Your task to perform on an android device: turn pop-ups off in chrome Image 0: 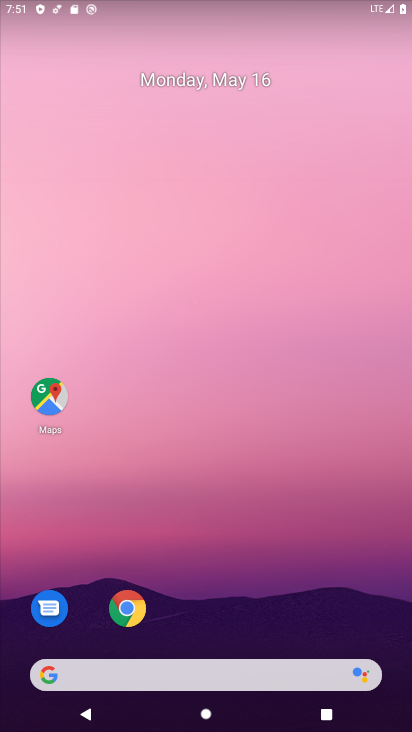
Step 0: click (127, 607)
Your task to perform on an android device: turn pop-ups off in chrome Image 1: 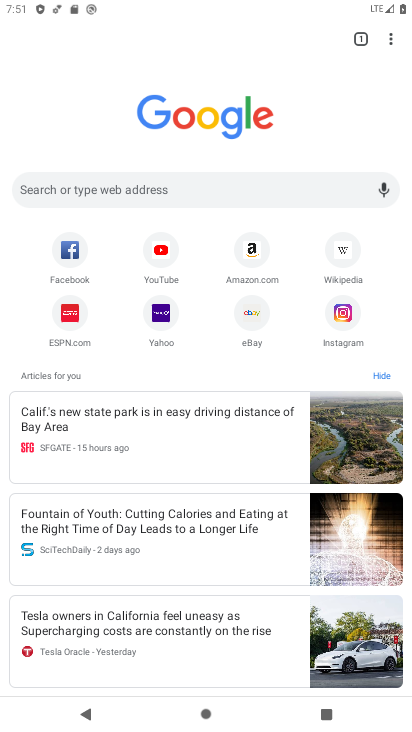
Step 1: click (391, 41)
Your task to perform on an android device: turn pop-ups off in chrome Image 2: 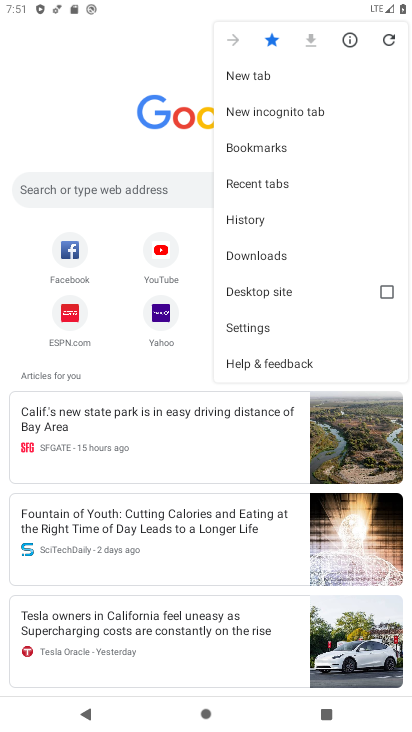
Step 2: click (254, 328)
Your task to perform on an android device: turn pop-ups off in chrome Image 3: 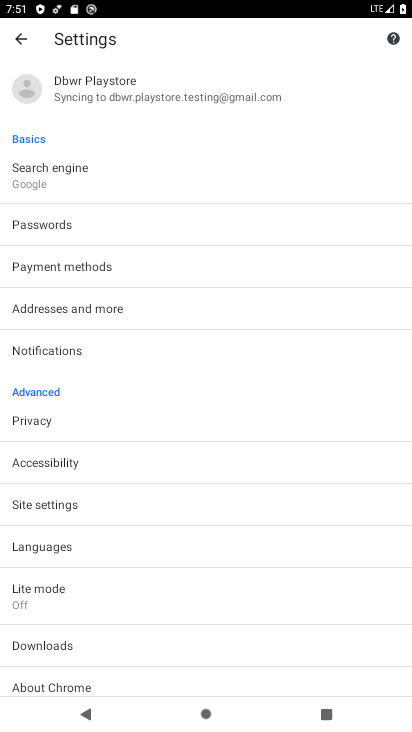
Step 3: click (45, 505)
Your task to perform on an android device: turn pop-ups off in chrome Image 4: 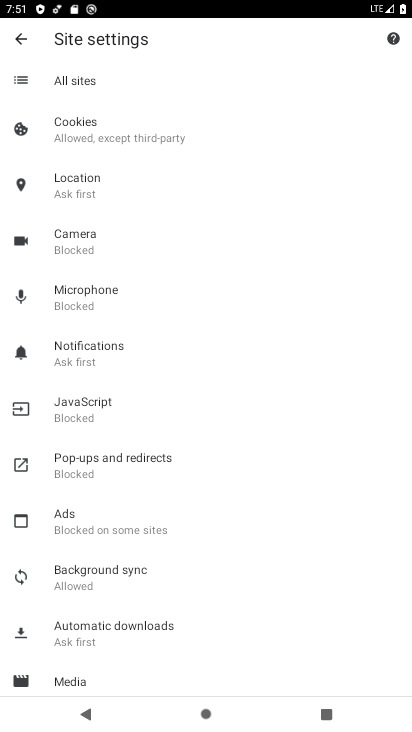
Step 4: click (82, 465)
Your task to perform on an android device: turn pop-ups off in chrome Image 5: 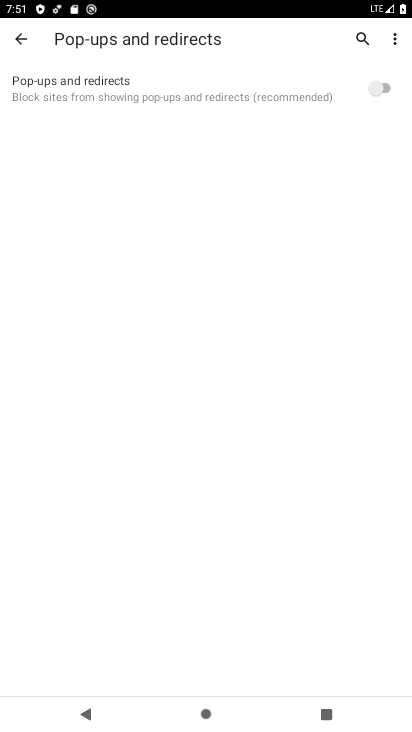
Step 5: task complete